Your task to perform on an android device: Open Youtube and go to the subscriptions tab Image 0: 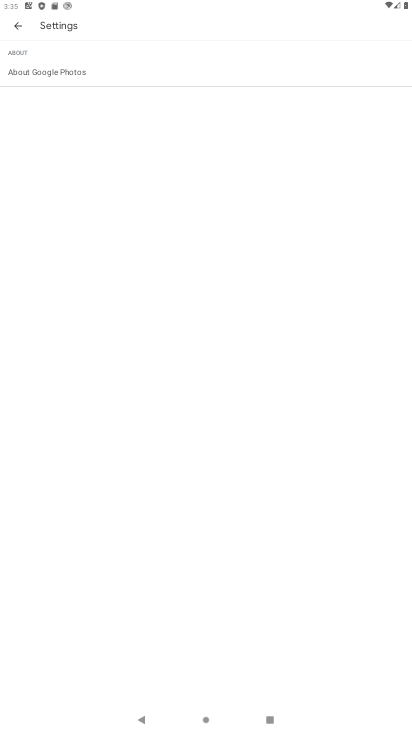
Step 0: press home button
Your task to perform on an android device: Open Youtube and go to the subscriptions tab Image 1: 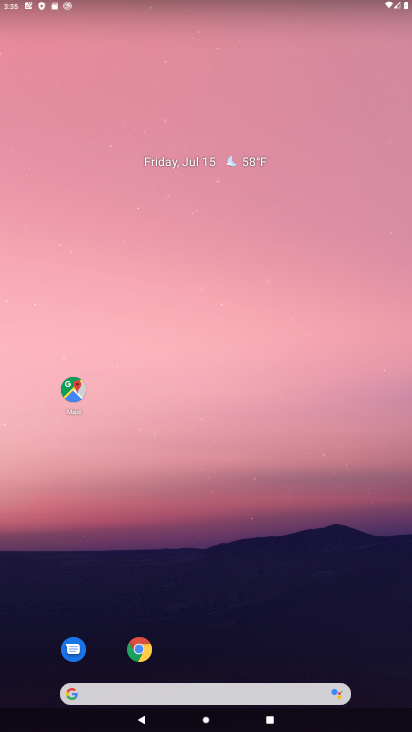
Step 1: drag from (235, 712) to (273, 243)
Your task to perform on an android device: Open Youtube and go to the subscriptions tab Image 2: 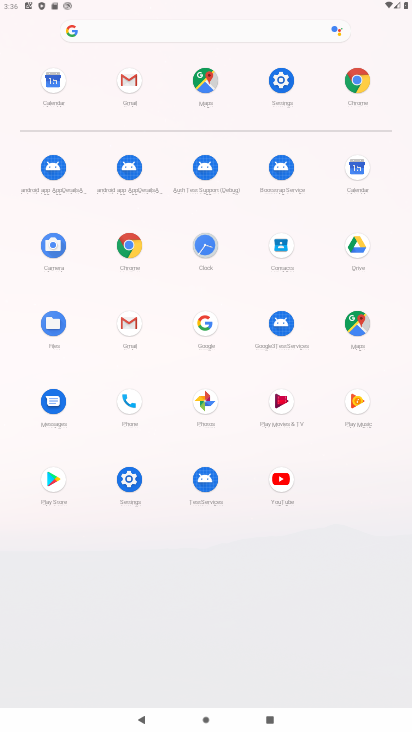
Step 2: click (279, 481)
Your task to perform on an android device: Open Youtube and go to the subscriptions tab Image 3: 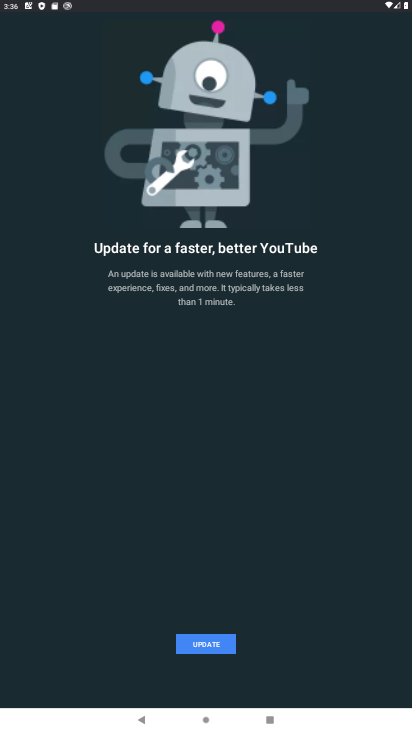
Step 3: task complete